Your task to perform on an android device: What's the weather like in Rio de Janeiro? Image 0: 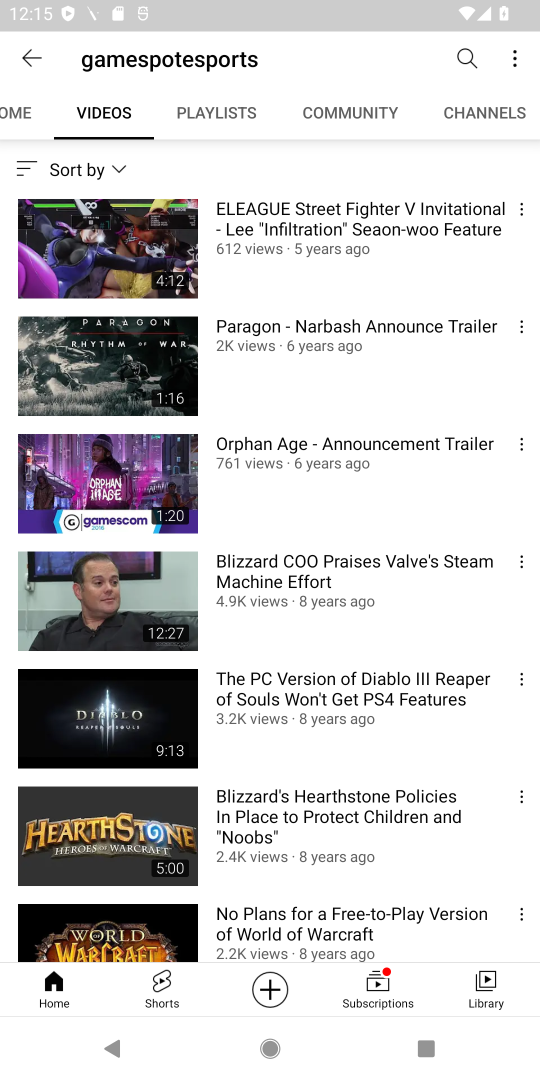
Step 0: press home button
Your task to perform on an android device: What's the weather like in Rio de Janeiro? Image 1: 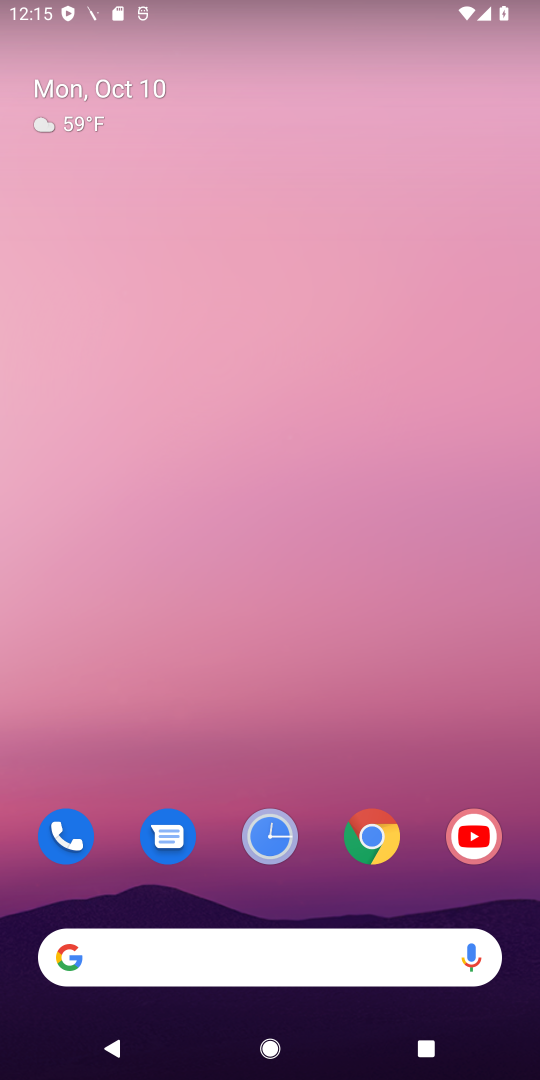
Step 1: click (368, 826)
Your task to perform on an android device: What's the weather like in Rio de Janeiro? Image 2: 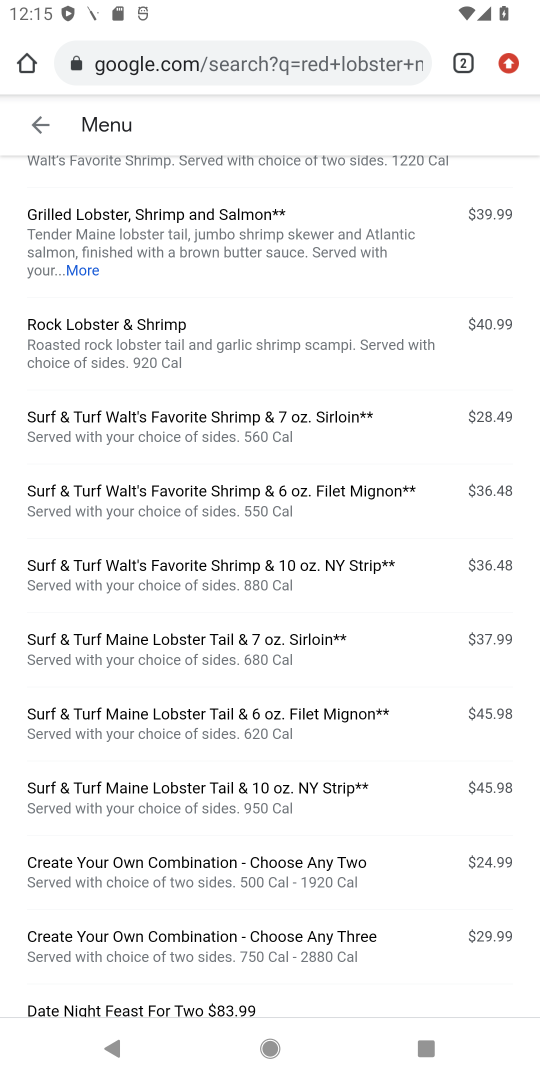
Step 2: click (263, 66)
Your task to perform on an android device: What's the weather like in Rio de Janeiro? Image 3: 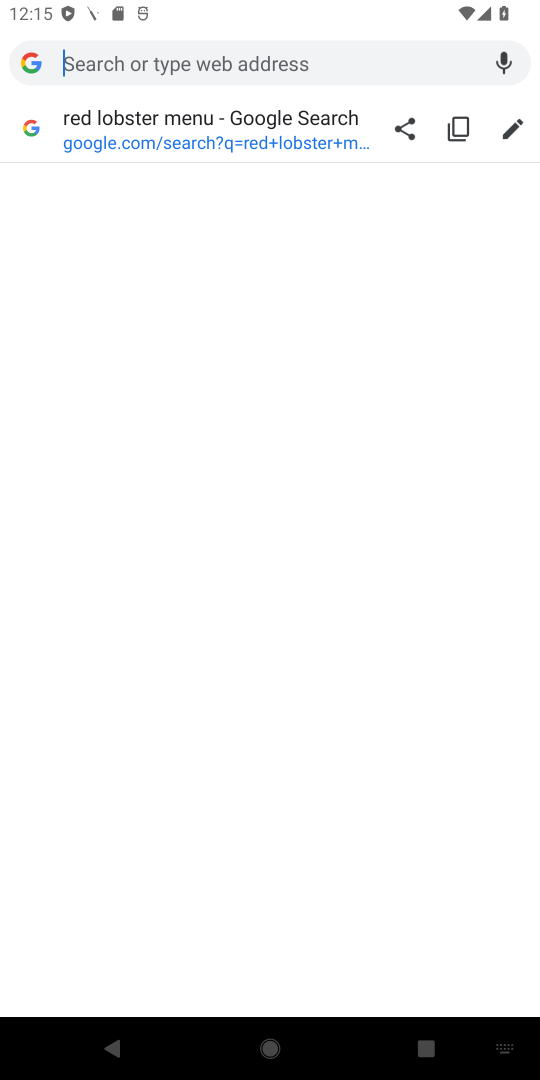
Step 3: type "weather like in Rio de Janeiro"
Your task to perform on an android device: What's the weather like in Rio de Janeiro? Image 4: 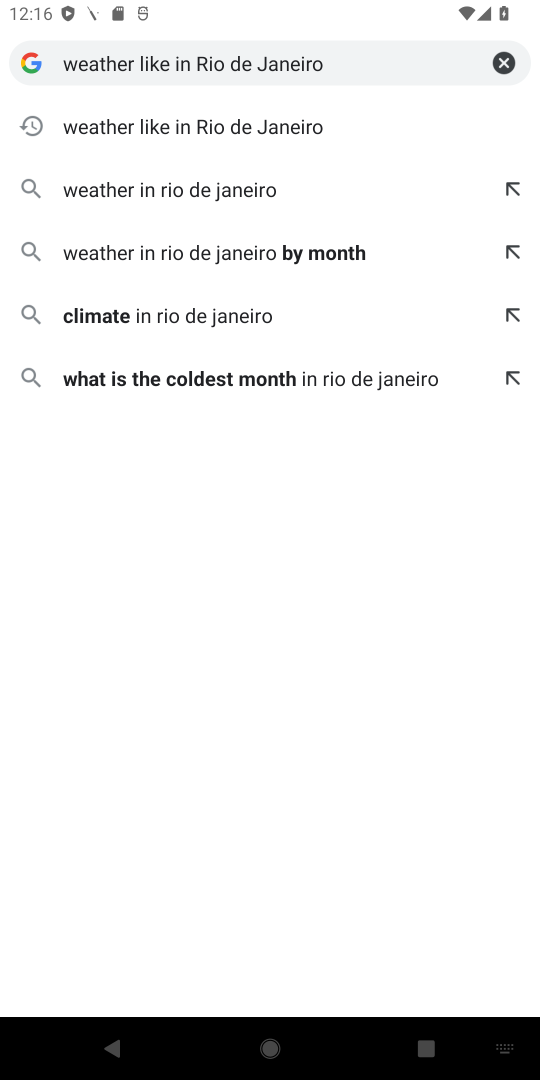
Step 4: click (189, 183)
Your task to perform on an android device: What's the weather like in Rio de Janeiro? Image 5: 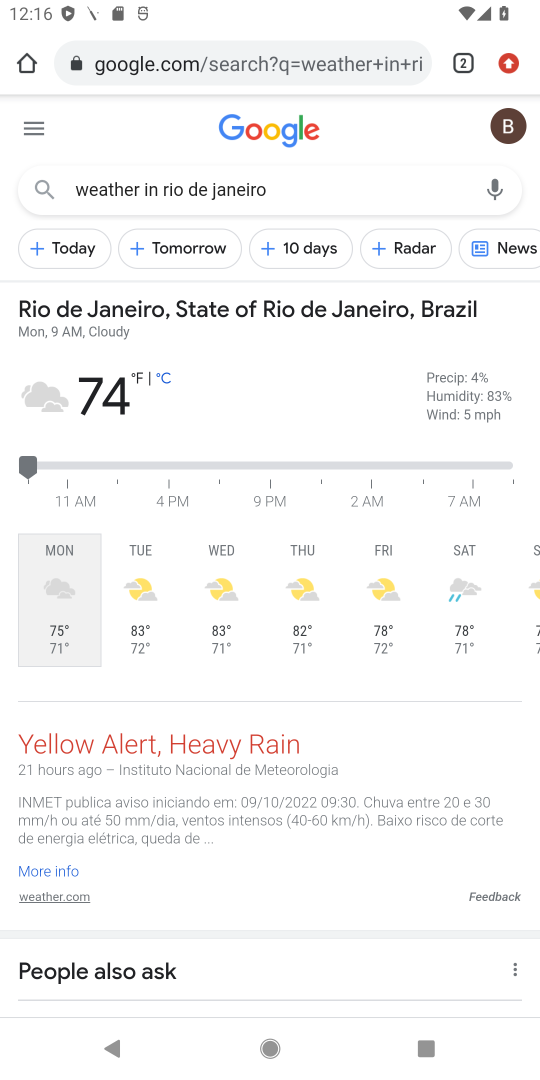
Step 5: task complete